Your task to perform on an android device: What's on my calendar tomorrow? Image 0: 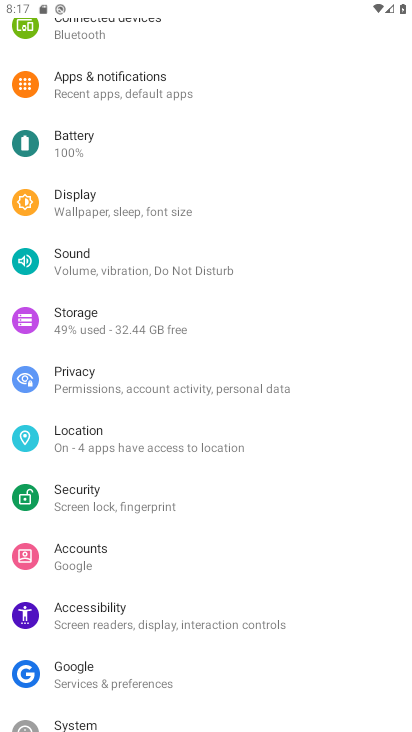
Step 0: drag from (225, 608) to (247, 259)
Your task to perform on an android device: What's on my calendar tomorrow? Image 1: 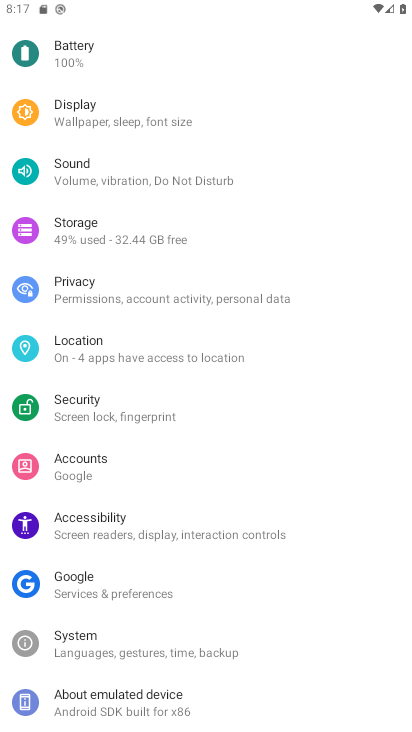
Step 1: press home button
Your task to perform on an android device: What's on my calendar tomorrow? Image 2: 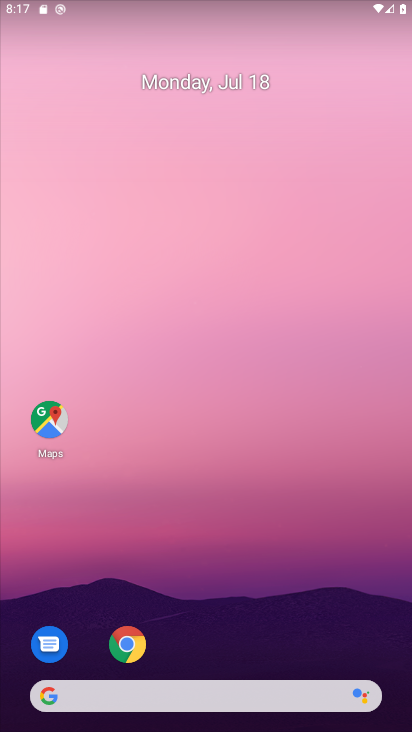
Step 2: drag from (191, 647) to (201, 118)
Your task to perform on an android device: What's on my calendar tomorrow? Image 3: 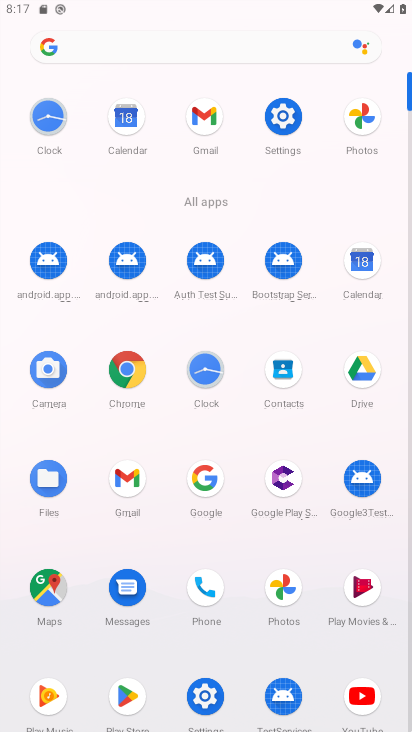
Step 3: click (106, 148)
Your task to perform on an android device: What's on my calendar tomorrow? Image 4: 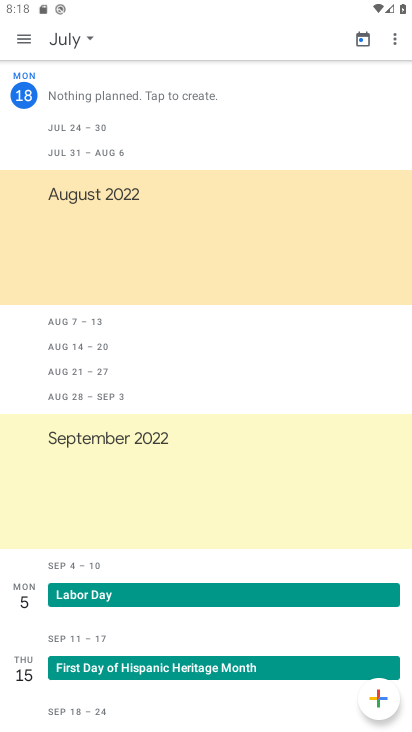
Step 4: task complete